Your task to perform on an android device: turn on notifications settings in the gmail app Image 0: 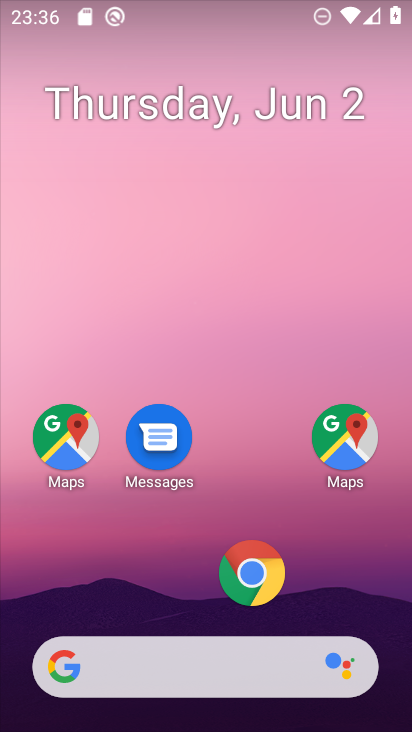
Step 0: drag from (257, 480) to (285, 33)
Your task to perform on an android device: turn on notifications settings in the gmail app Image 1: 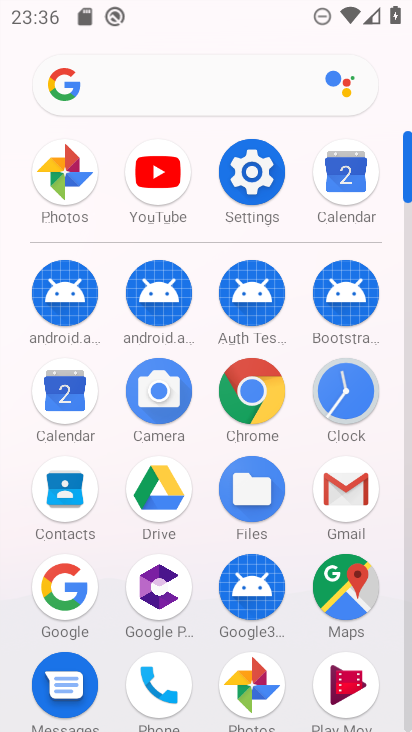
Step 1: click (345, 494)
Your task to perform on an android device: turn on notifications settings in the gmail app Image 2: 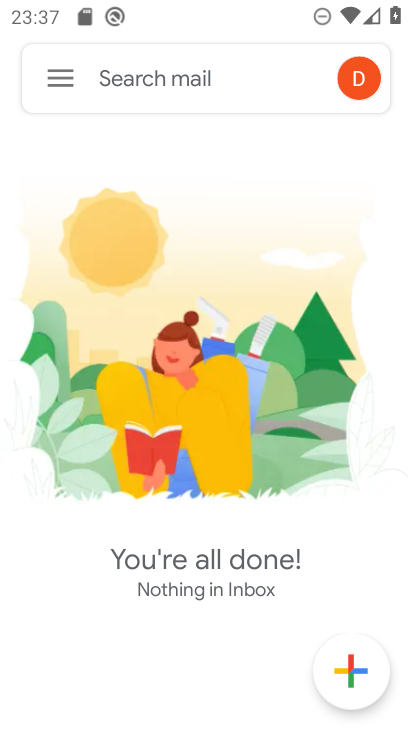
Step 2: click (62, 95)
Your task to perform on an android device: turn on notifications settings in the gmail app Image 3: 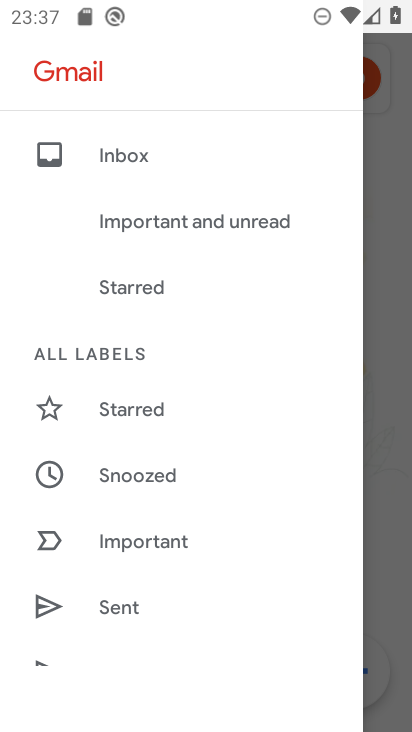
Step 3: drag from (209, 653) to (272, 454)
Your task to perform on an android device: turn on notifications settings in the gmail app Image 4: 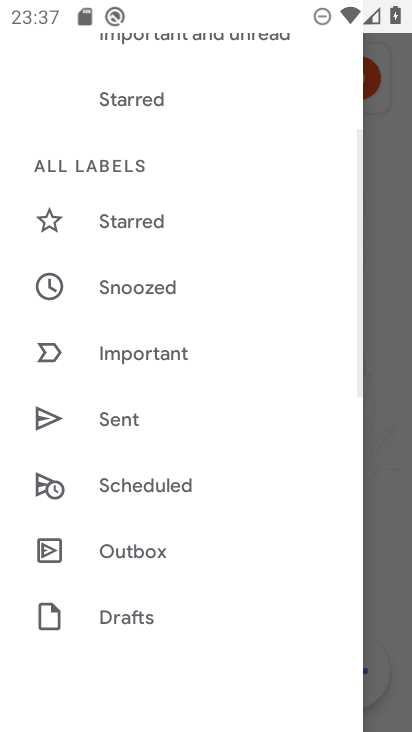
Step 4: drag from (249, 574) to (284, 456)
Your task to perform on an android device: turn on notifications settings in the gmail app Image 5: 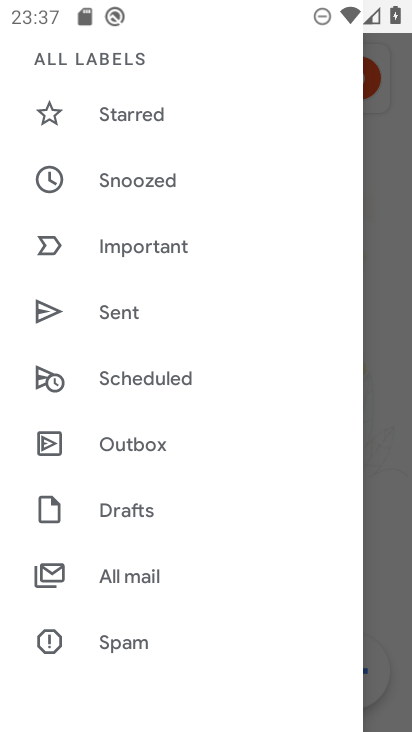
Step 5: drag from (192, 588) to (241, 349)
Your task to perform on an android device: turn on notifications settings in the gmail app Image 6: 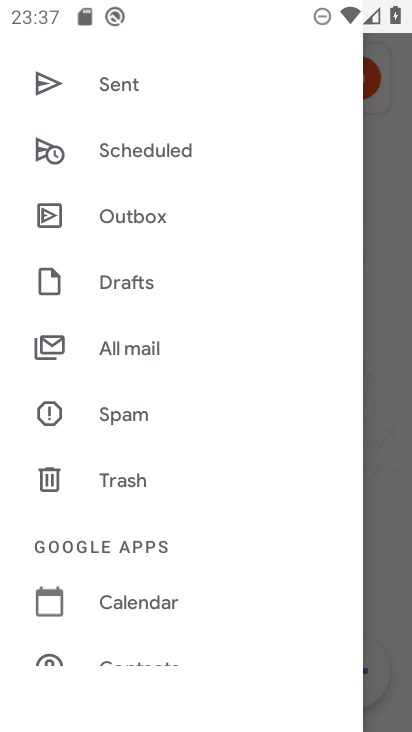
Step 6: drag from (230, 567) to (208, 88)
Your task to perform on an android device: turn on notifications settings in the gmail app Image 7: 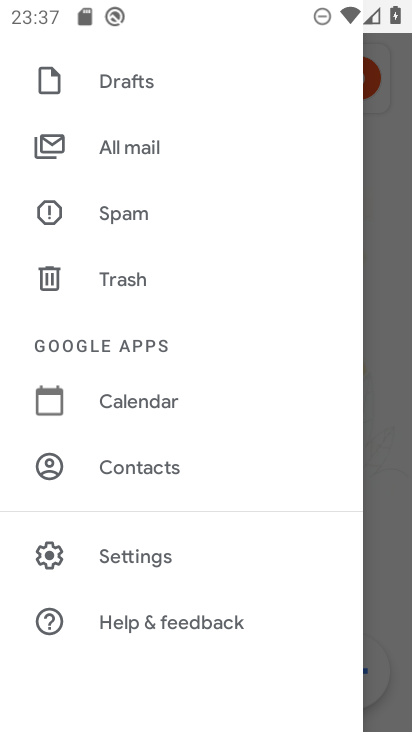
Step 7: click (96, 570)
Your task to perform on an android device: turn on notifications settings in the gmail app Image 8: 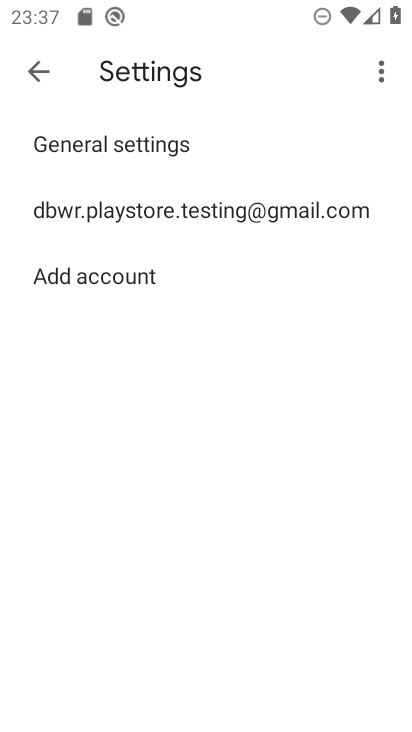
Step 8: click (117, 137)
Your task to perform on an android device: turn on notifications settings in the gmail app Image 9: 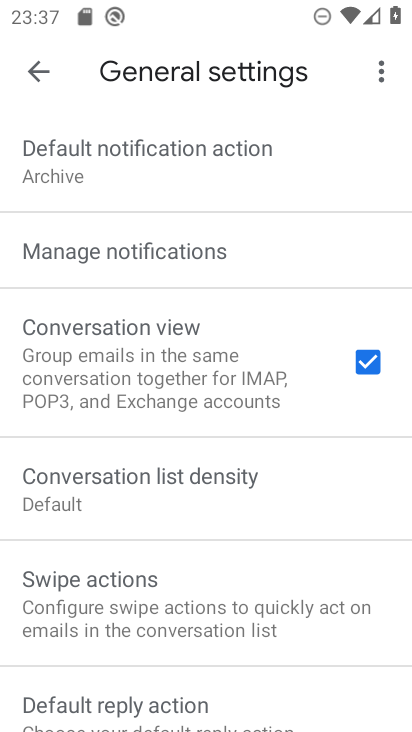
Step 9: click (218, 247)
Your task to perform on an android device: turn on notifications settings in the gmail app Image 10: 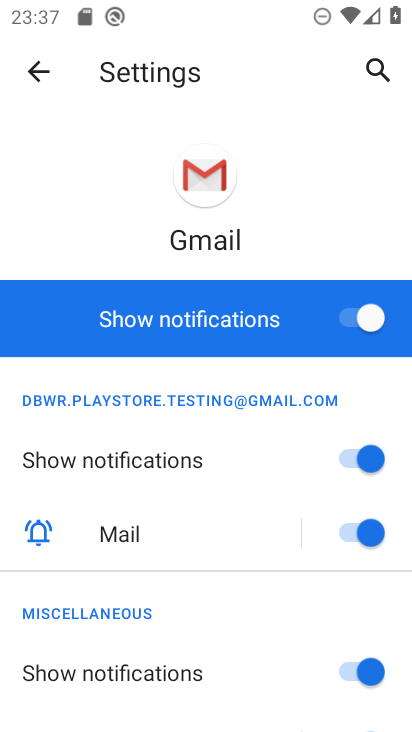
Step 10: task complete